Your task to perform on an android device: Open calendar and show me the third week of next month Image 0: 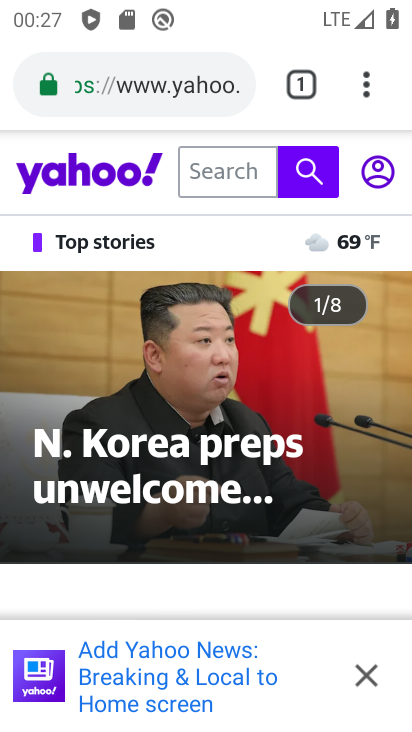
Step 0: press home button
Your task to perform on an android device: Open calendar and show me the third week of next month Image 1: 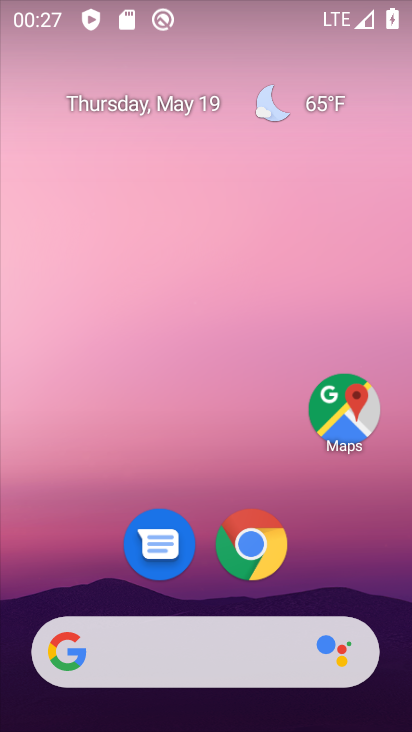
Step 1: drag from (358, 567) to (326, 83)
Your task to perform on an android device: Open calendar and show me the third week of next month Image 2: 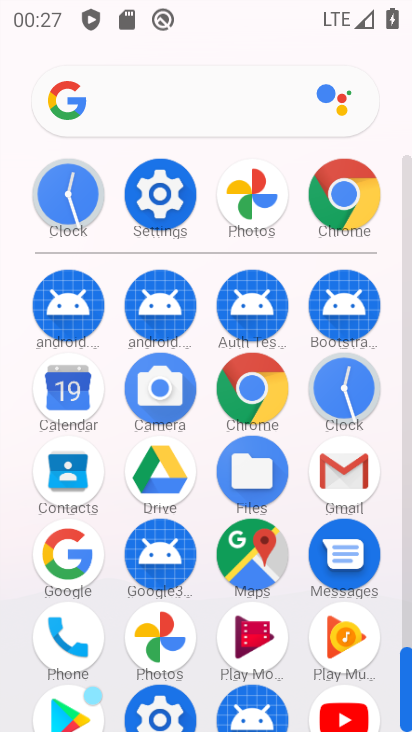
Step 2: click (81, 396)
Your task to perform on an android device: Open calendar and show me the third week of next month Image 3: 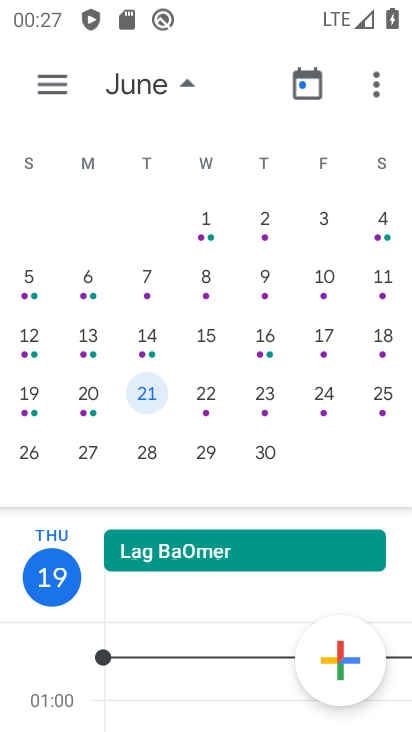
Step 3: click (145, 343)
Your task to perform on an android device: Open calendar and show me the third week of next month Image 4: 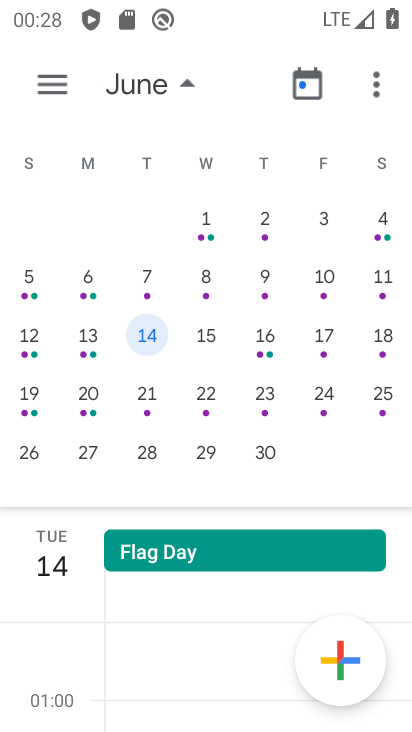
Step 4: task complete